Your task to perform on an android device: Open maps Image 0: 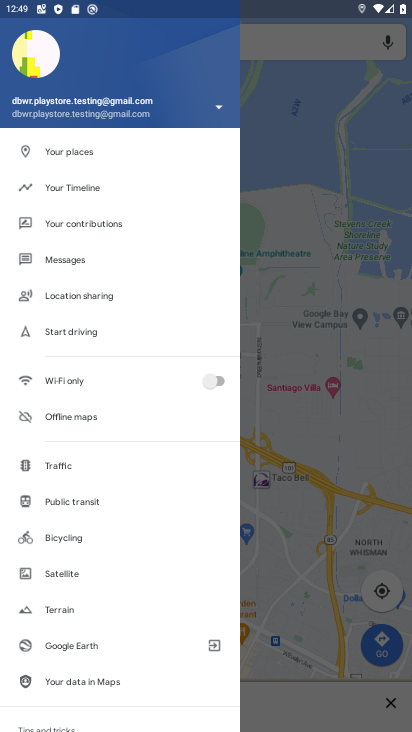
Step 0: press back button
Your task to perform on an android device: Open maps Image 1: 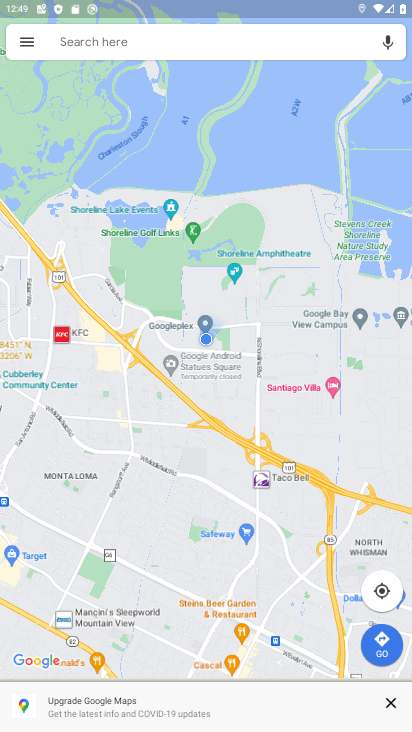
Step 1: task complete